Your task to perform on an android device: find snoozed emails in the gmail app Image 0: 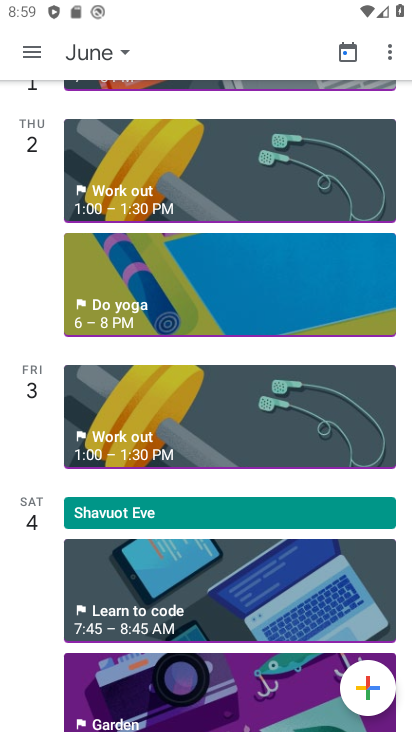
Step 0: press home button
Your task to perform on an android device: find snoozed emails in the gmail app Image 1: 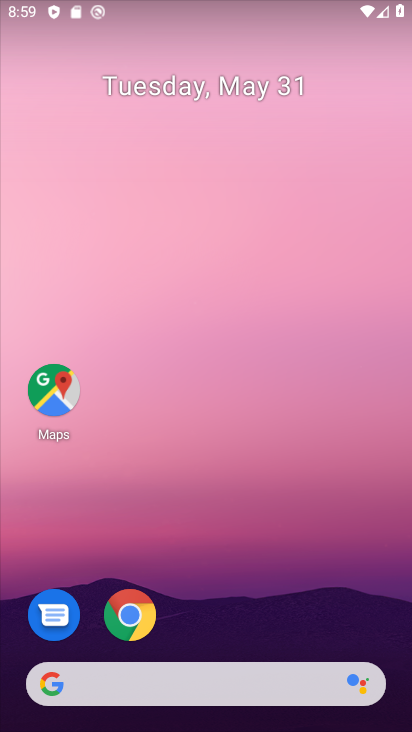
Step 1: drag from (368, 625) to (323, 123)
Your task to perform on an android device: find snoozed emails in the gmail app Image 2: 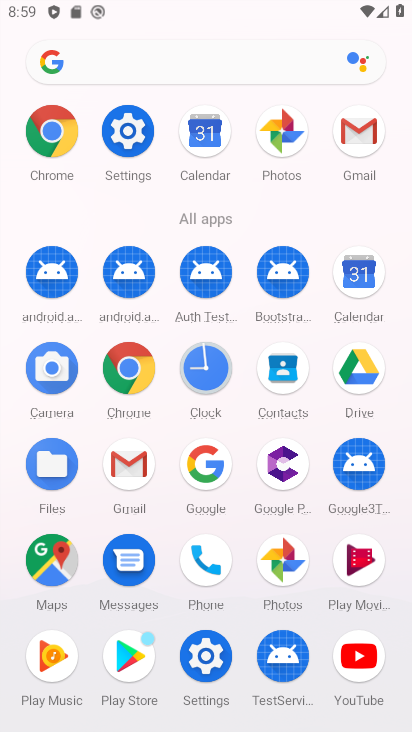
Step 2: click (363, 132)
Your task to perform on an android device: find snoozed emails in the gmail app Image 3: 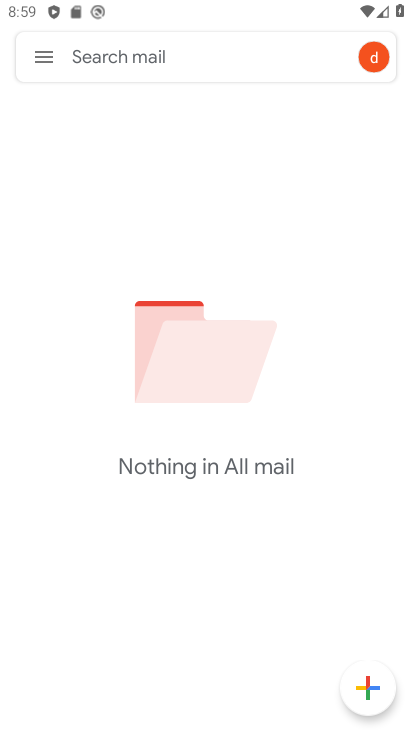
Step 3: click (46, 60)
Your task to perform on an android device: find snoozed emails in the gmail app Image 4: 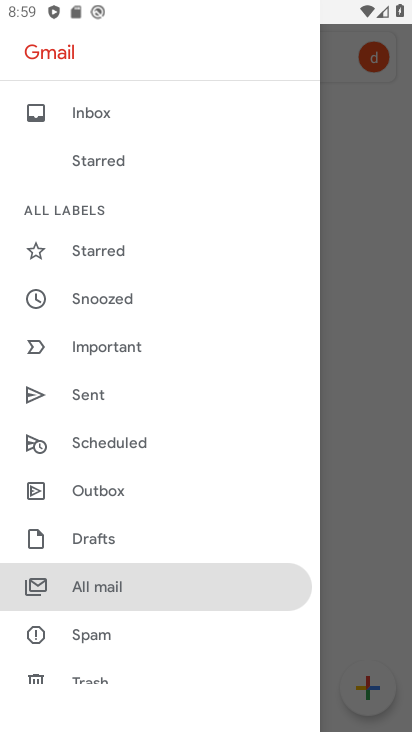
Step 4: click (103, 290)
Your task to perform on an android device: find snoozed emails in the gmail app Image 5: 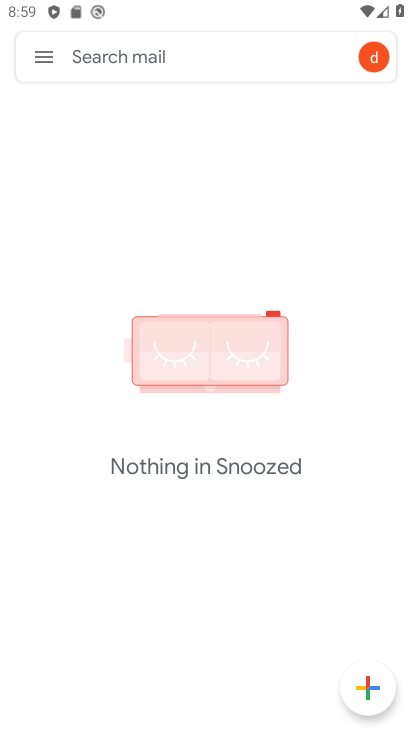
Step 5: task complete